Your task to perform on an android device: Open Chrome and go to settings Image 0: 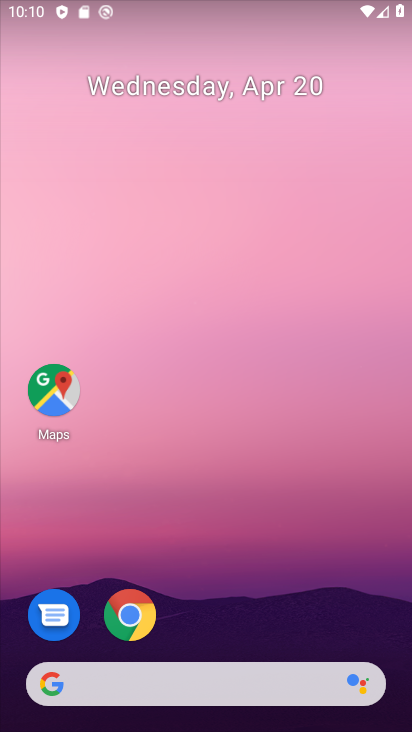
Step 0: click (124, 618)
Your task to perform on an android device: Open Chrome and go to settings Image 1: 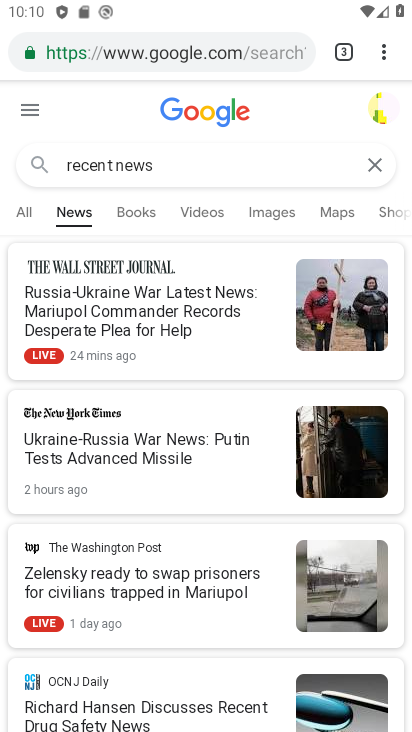
Step 1: click (385, 41)
Your task to perform on an android device: Open Chrome and go to settings Image 2: 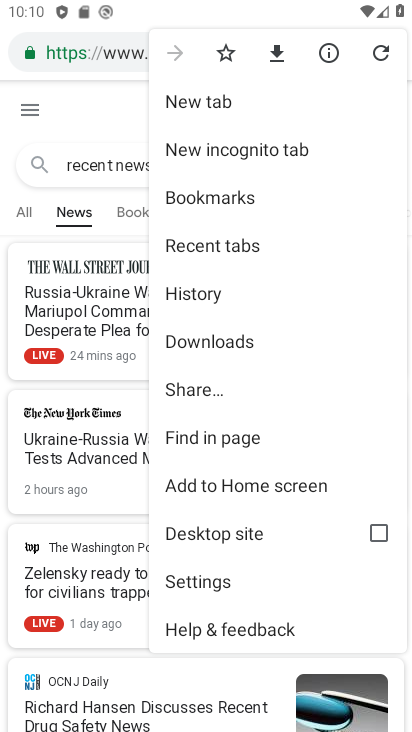
Step 2: click (210, 588)
Your task to perform on an android device: Open Chrome and go to settings Image 3: 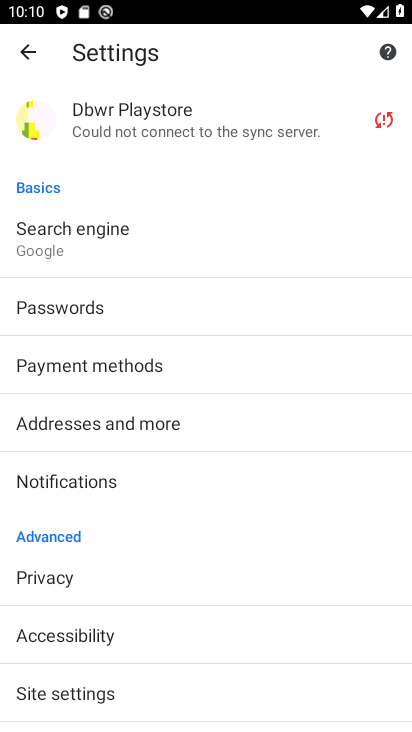
Step 3: task complete